Your task to perform on an android device: What is the news today? Image 0: 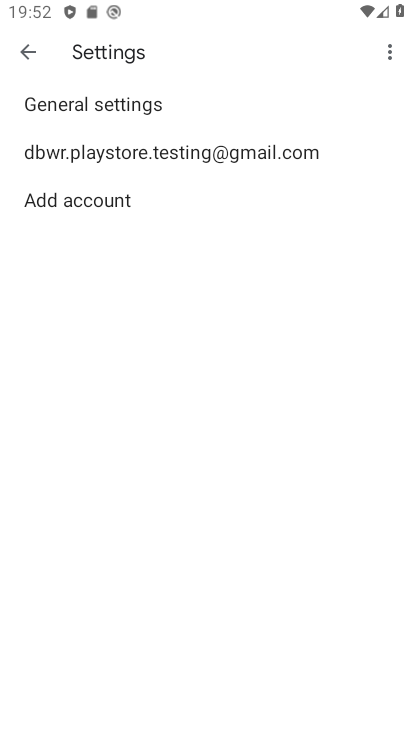
Step 0: press back button
Your task to perform on an android device: What is the news today? Image 1: 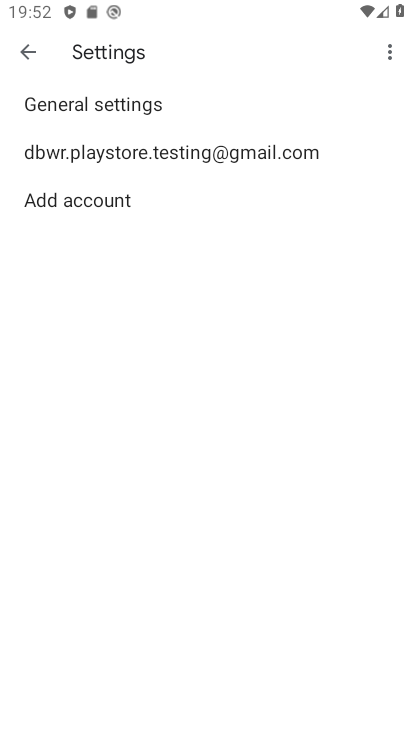
Step 1: press back button
Your task to perform on an android device: What is the news today? Image 2: 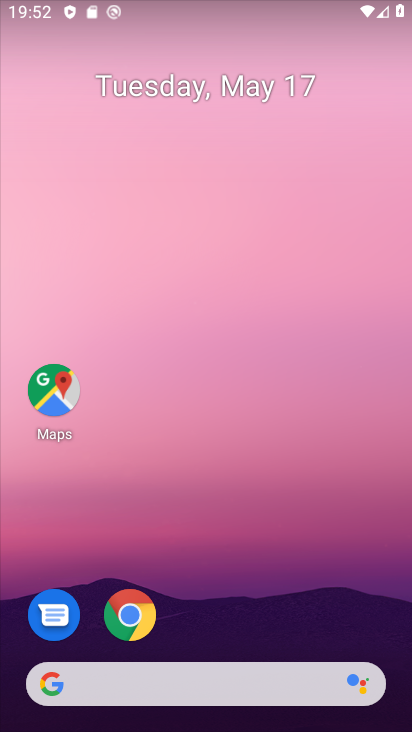
Step 2: click (126, 680)
Your task to perform on an android device: What is the news today? Image 3: 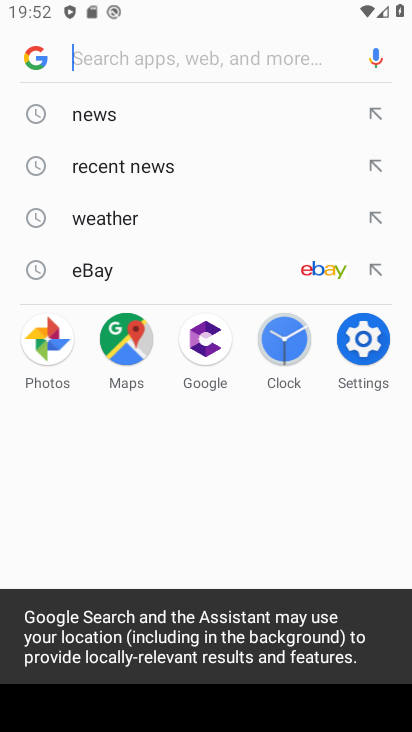
Step 3: click (114, 58)
Your task to perform on an android device: What is the news today? Image 4: 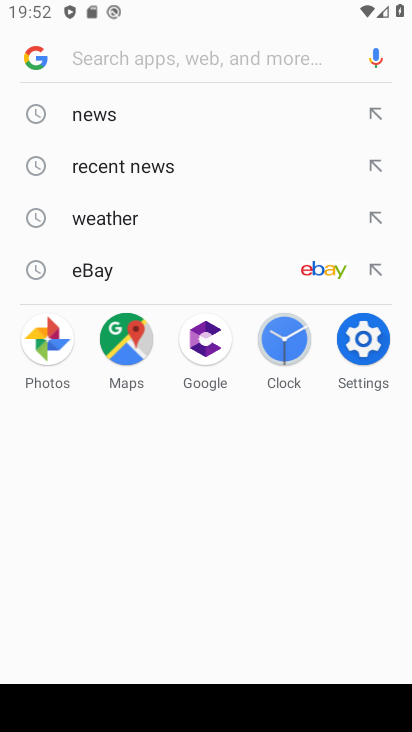
Step 4: type "news today"
Your task to perform on an android device: What is the news today? Image 5: 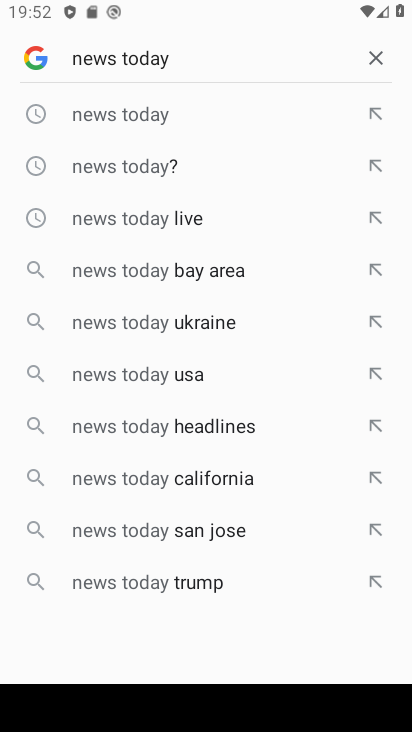
Step 5: click (139, 112)
Your task to perform on an android device: What is the news today? Image 6: 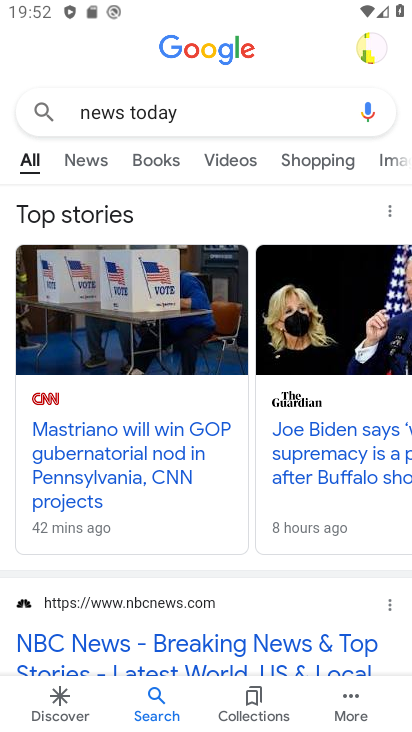
Step 6: task complete